Your task to perform on an android device: turn on improve location accuracy Image 0: 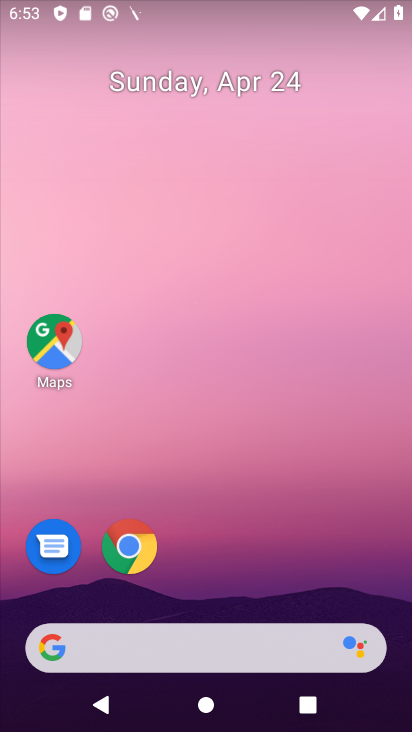
Step 0: click (235, 543)
Your task to perform on an android device: turn on improve location accuracy Image 1: 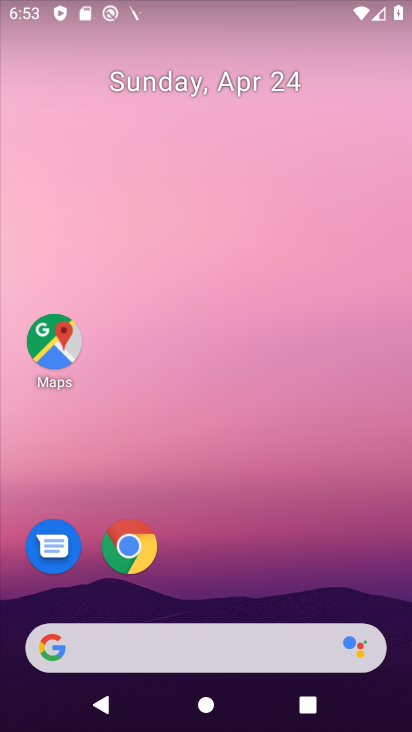
Step 1: drag from (235, 543) to (184, 39)
Your task to perform on an android device: turn on improve location accuracy Image 2: 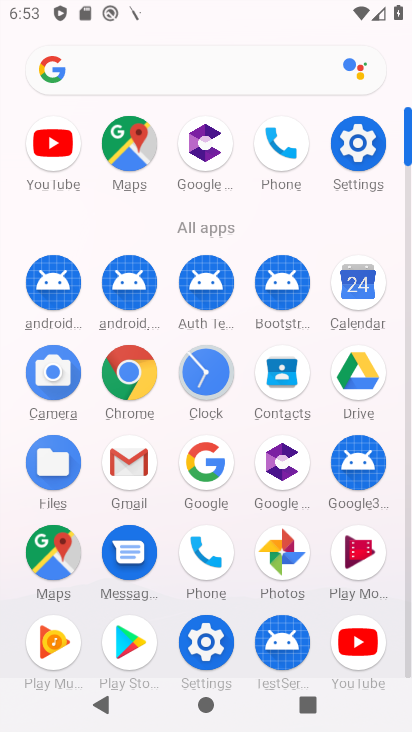
Step 2: click (354, 145)
Your task to perform on an android device: turn on improve location accuracy Image 3: 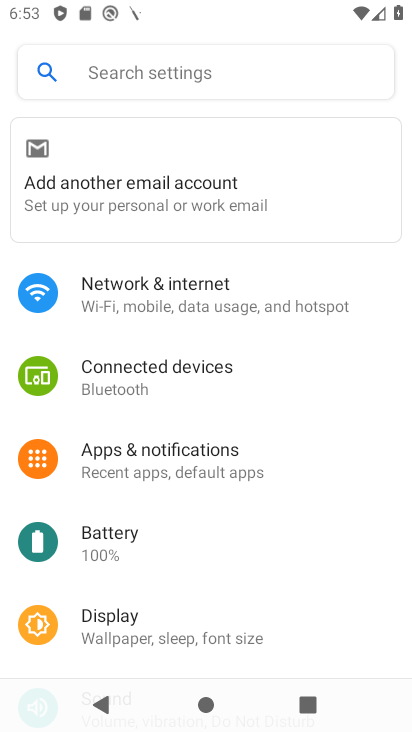
Step 3: drag from (240, 576) to (217, 182)
Your task to perform on an android device: turn on improve location accuracy Image 4: 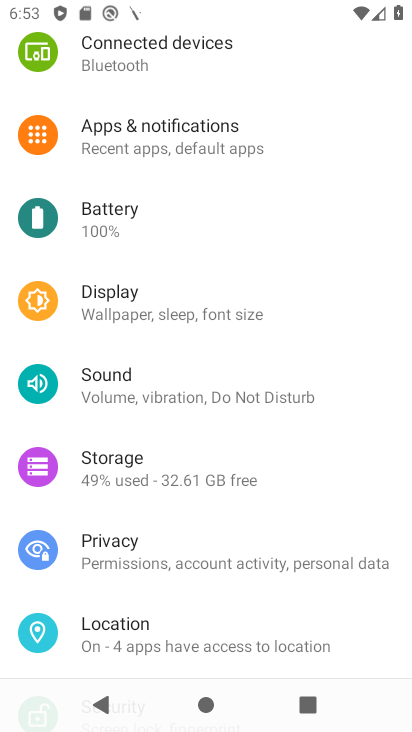
Step 4: click (119, 625)
Your task to perform on an android device: turn on improve location accuracy Image 5: 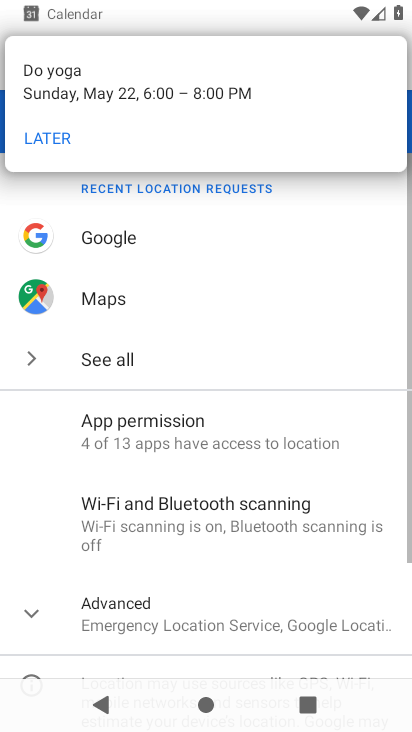
Step 5: click (99, 612)
Your task to perform on an android device: turn on improve location accuracy Image 6: 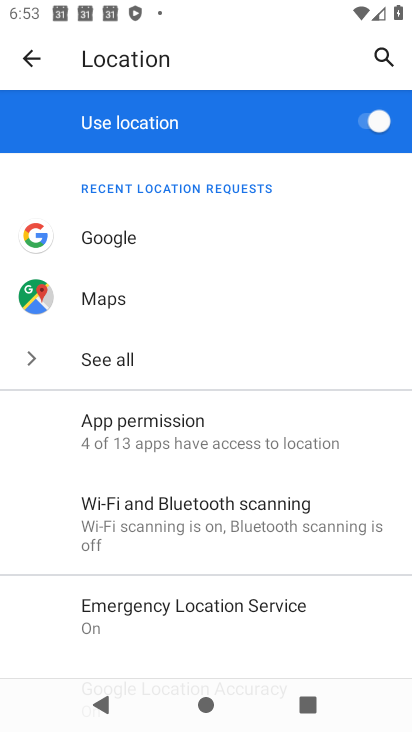
Step 6: drag from (303, 341) to (303, 64)
Your task to perform on an android device: turn on improve location accuracy Image 7: 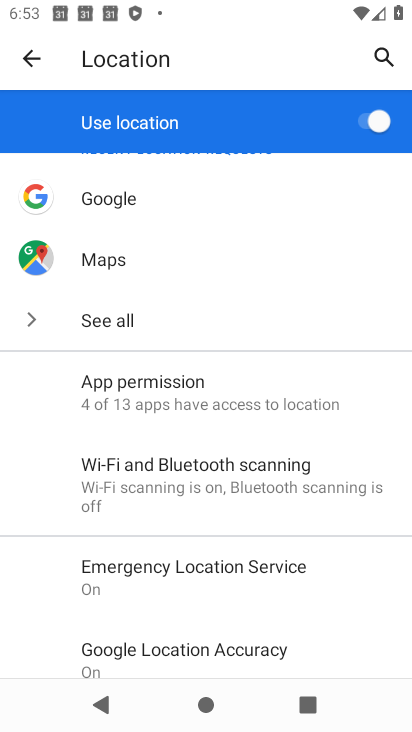
Step 7: click (166, 645)
Your task to perform on an android device: turn on improve location accuracy Image 8: 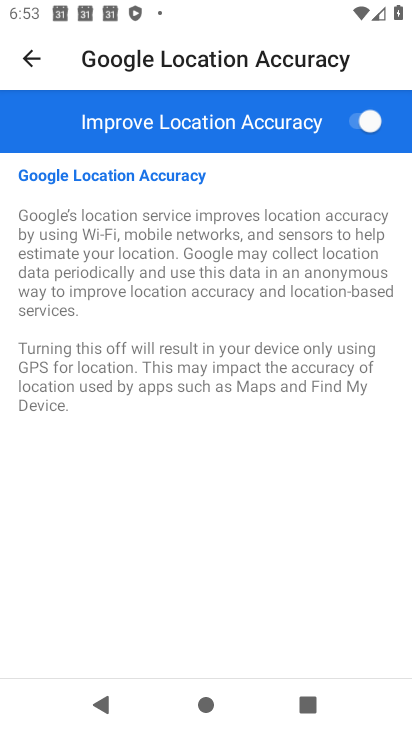
Step 8: task complete